Your task to perform on an android device: open app "Truecaller" Image 0: 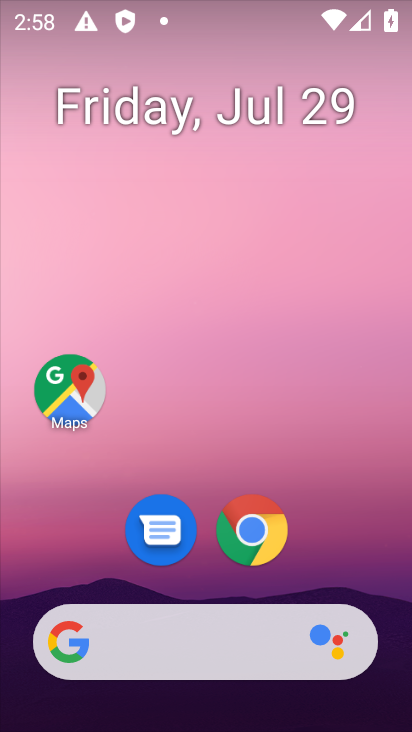
Step 0: drag from (325, 585) to (309, 9)
Your task to perform on an android device: open app "Truecaller" Image 1: 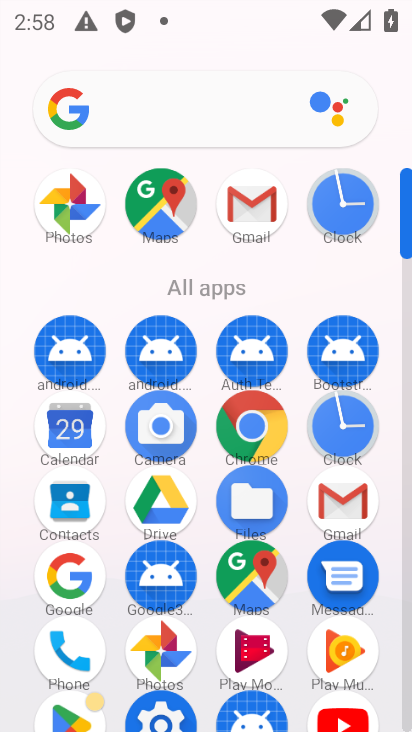
Step 1: drag from (286, 617) to (253, 356)
Your task to perform on an android device: open app "Truecaller" Image 2: 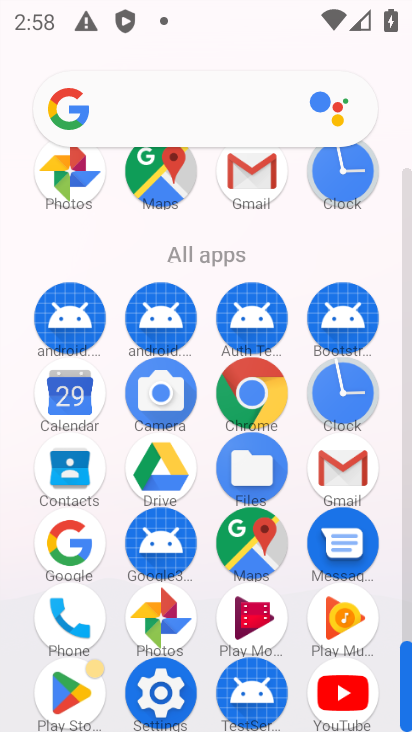
Step 2: click (74, 687)
Your task to perform on an android device: open app "Truecaller" Image 3: 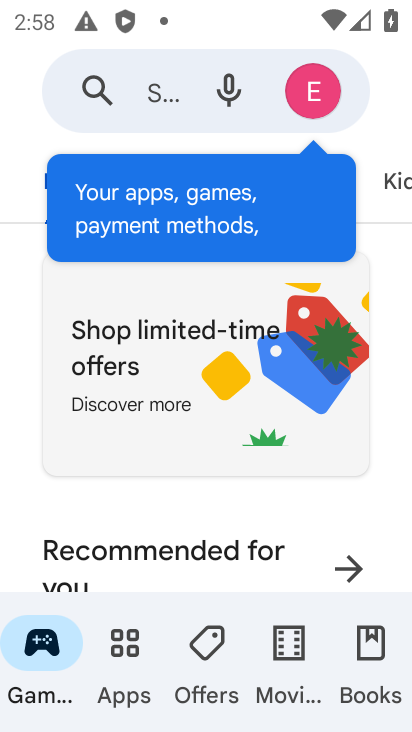
Step 3: click (214, 92)
Your task to perform on an android device: open app "Truecaller" Image 4: 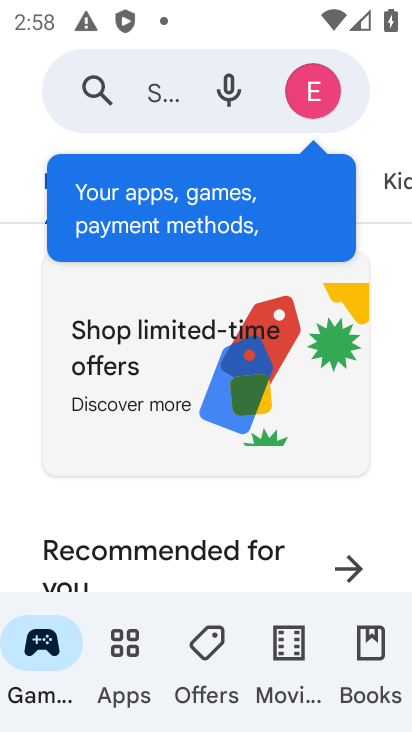
Step 4: click (145, 93)
Your task to perform on an android device: open app "Truecaller" Image 5: 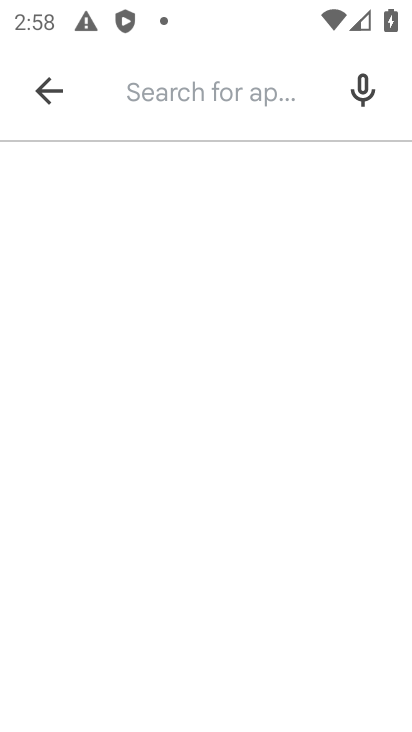
Step 5: type "Truecaller"
Your task to perform on an android device: open app "Truecaller" Image 6: 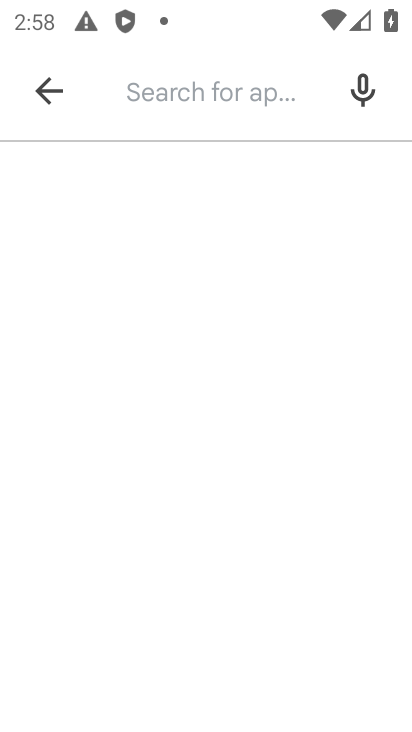
Step 6: click (177, 91)
Your task to perform on an android device: open app "Truecaller" Image 7: 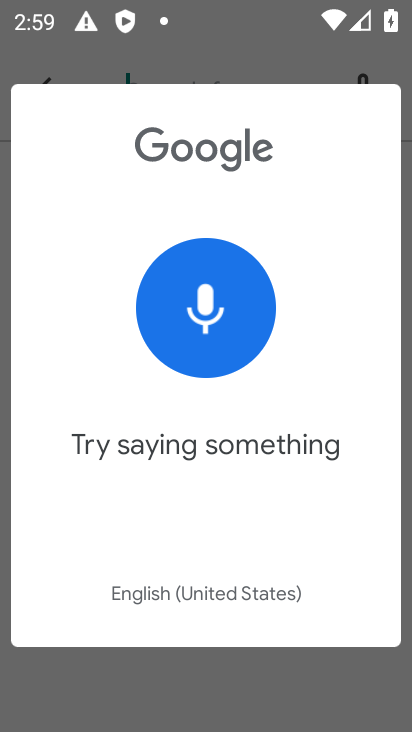
Step 7: click (209, 100)
Your task to perform on an android device: open app "Truecaller" Image 8: 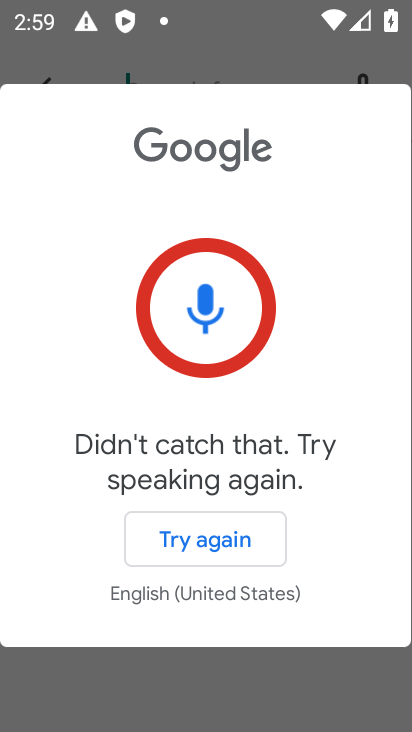
Step 8: press home button
Your task to perform on an android device: open app "Truecaller" Image 9: 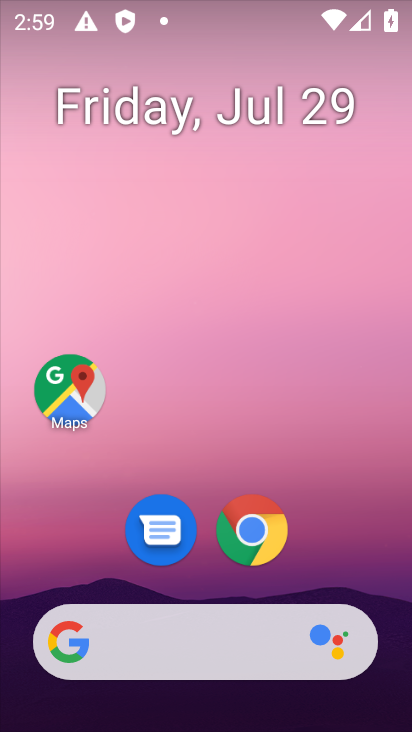
Step 9: drag from (308, 441) to (279, 16)
Your task to perform on an android device: open app "Truecaller" Image 10: 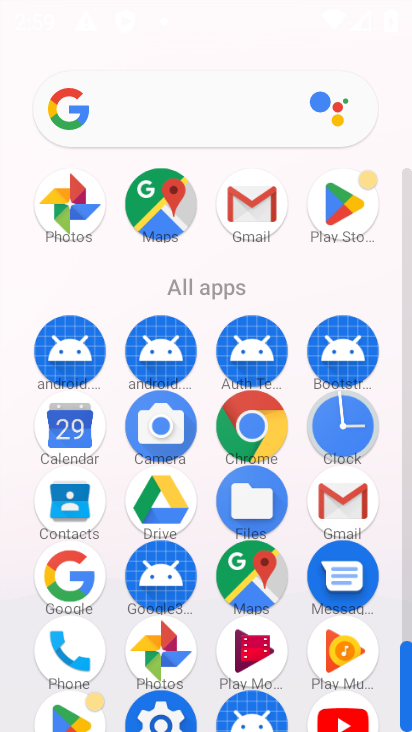
Step 10: click (342, 204)
Your task to perform on an android device: open app "Truecaller" Image 11: 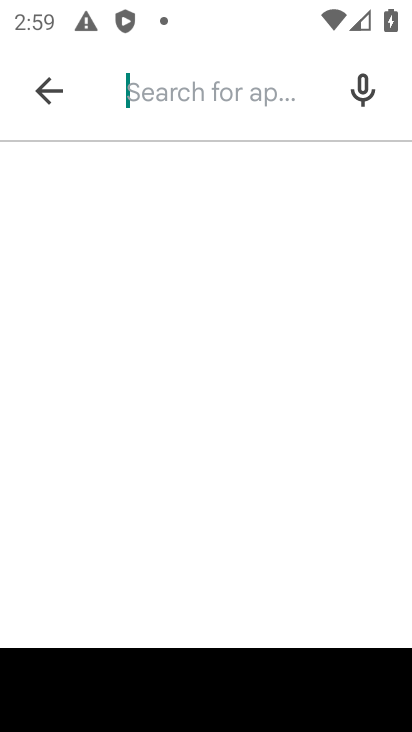
Step 11: click (129, 92)
Your task to perform on an android device: open app "Truecaller" Image 12: 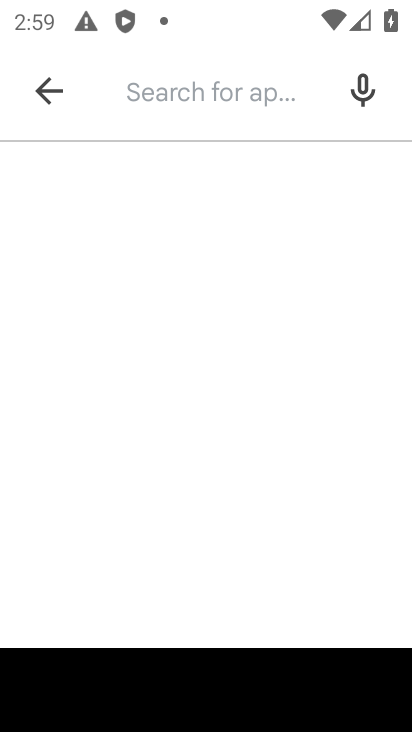
Step 12: type "Truecaller"
Your task to perform on an android device: open app "Truecaller" Image 13: 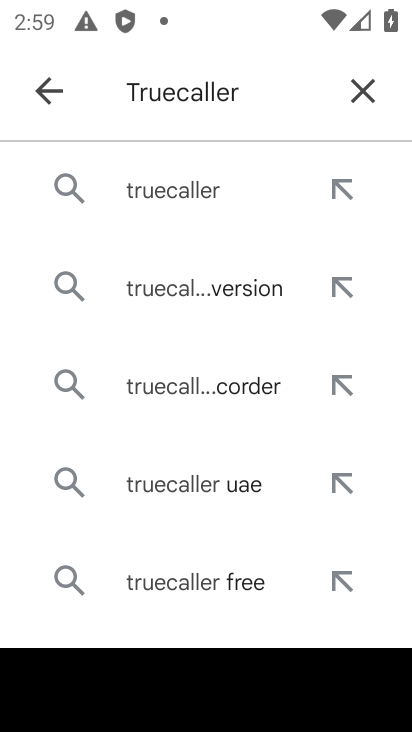
Step 13: click (207, 191)
Your task to perform on an android device: open app "Truecaller" Image 14: 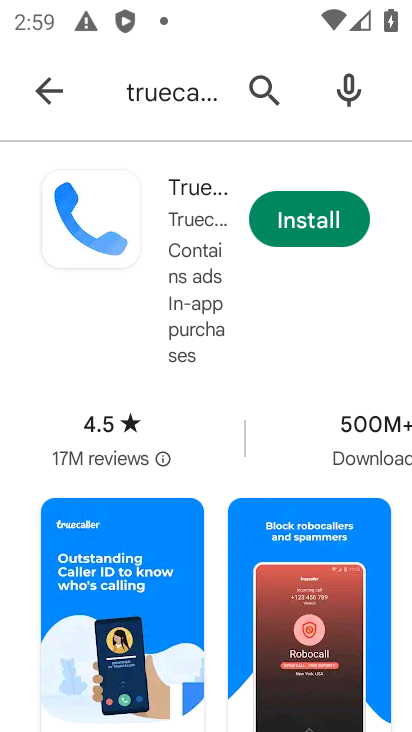
Step 14: task complete